Your task to perform on an android device: Open the calendar and show me this week's events? Image 0: 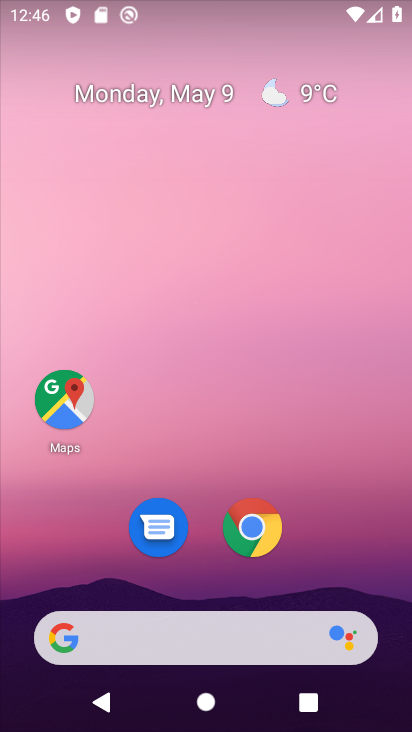
Step 0: drag from (211, 578) to (253, 134)
Your task to perform on an android device: Open the calendar and show me this week's events? Image 1: 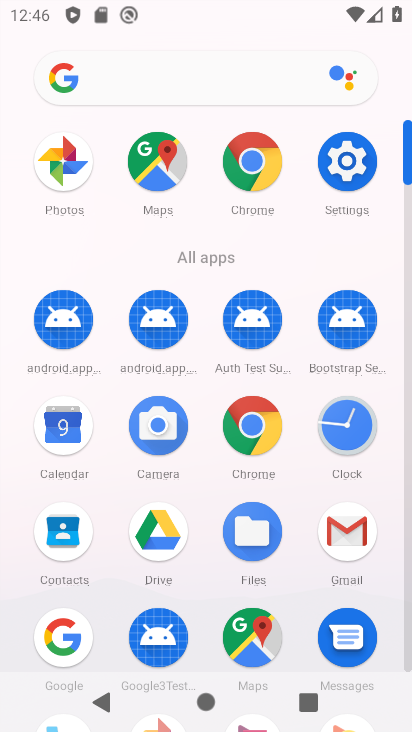
Step 1: click (55, 437)
Your task to perform on an android device: Open the calendar and show me this week's events? Image 2: 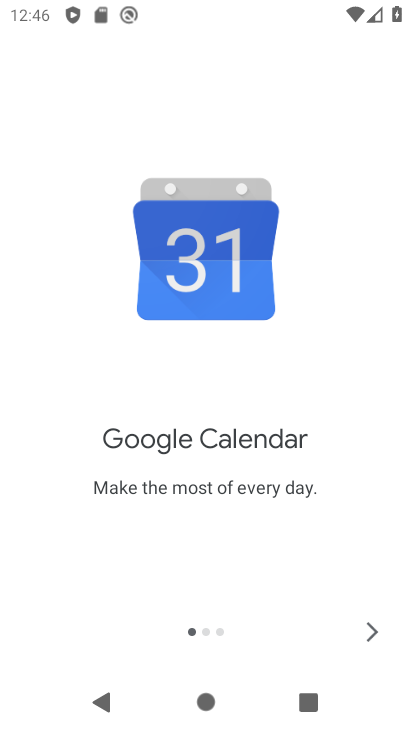
Step 2: click (380, 622)
Your task to perform on an android device: Open the calendar and show me this week's events? Image 3: 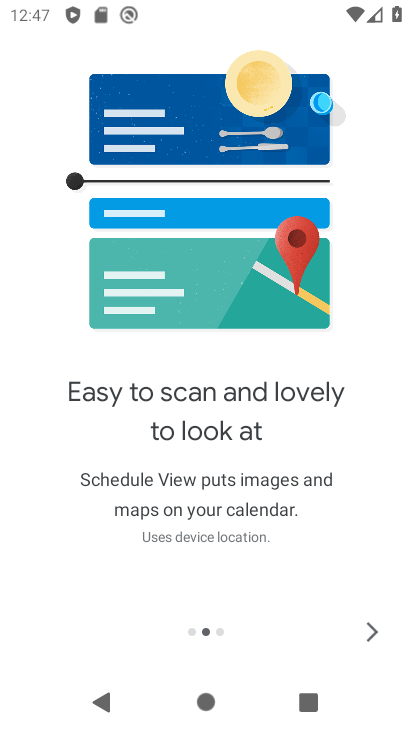
Step 3: click (360, 630)
Your task to perform on an android device: Open the calendar and show me this week's events? Image 4: 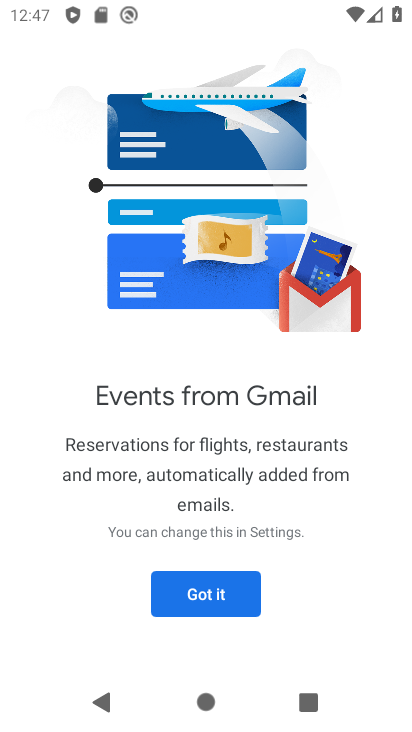
Step 4: click (212, 599)
Your task to perform on an android device: Open the calendar and show me this week's events? Image 5: 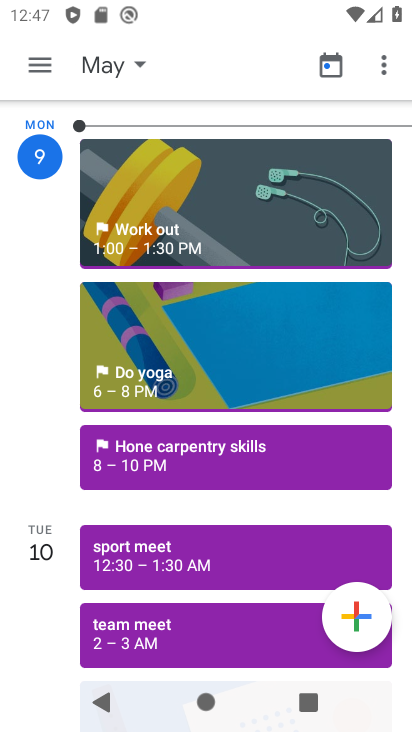
Step 5: click (60, 60)
Your task to perform on an android device: Open the calendar and show me this week's events? Image 6: 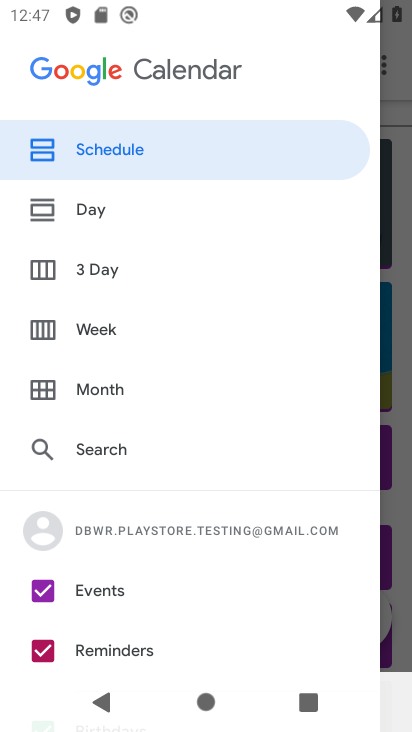
Step 6: drag from (177, 356) to (194, 280)
Your task to perform on an android device: Open the calendar and show me this week's events? Image 7: 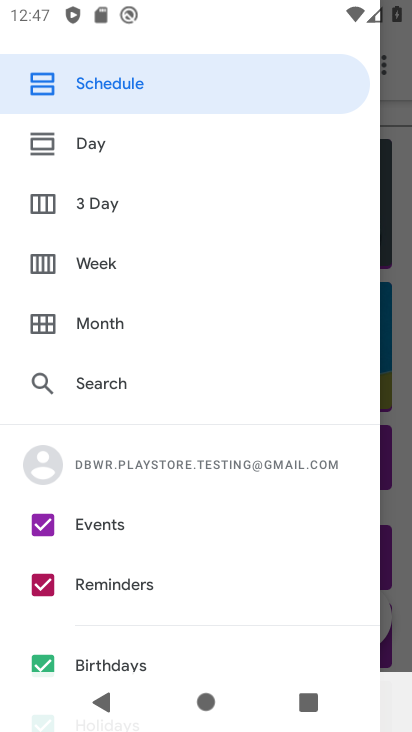
Step 7: click (34, 577)
Your task to perform on an android device: Open the calendar and show me this week's events? Image 8: 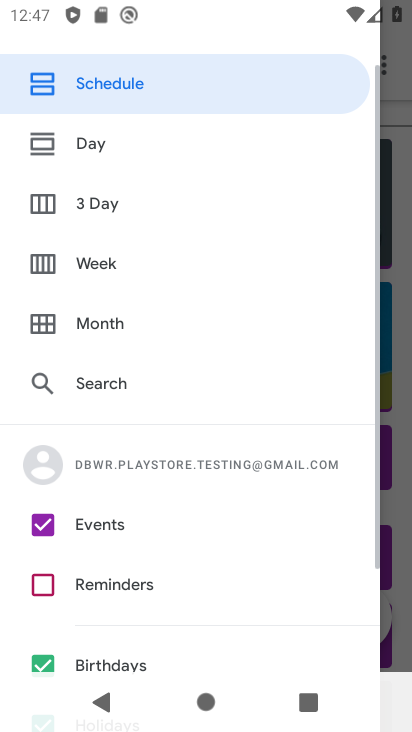
Step 8: drag from (156, 610) to (214, 217)
Your task to perform on an android device: Open the calendar and show me this week's events? Image 9: 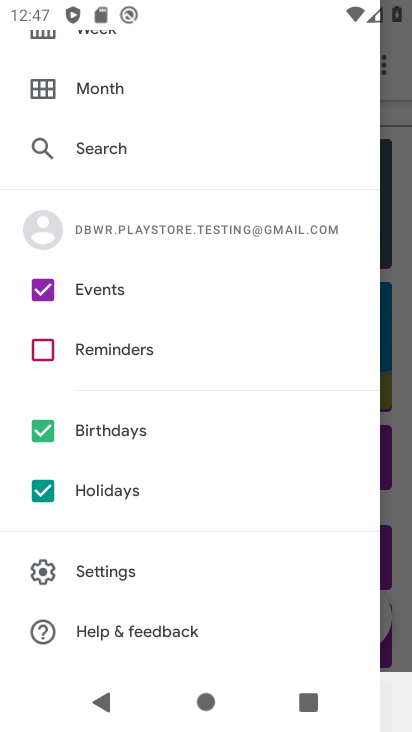
Step 9: click (45, 433)
Your task to perform on an android device: Open the calendar and show me this week's events? Image 10: 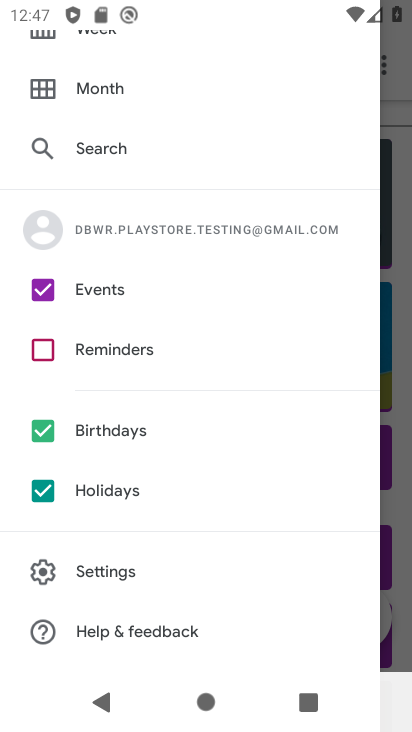
Step 10: click (49, 509)
Your task to perform on an android device: Open the calendar and show me this week's events? Image 11: 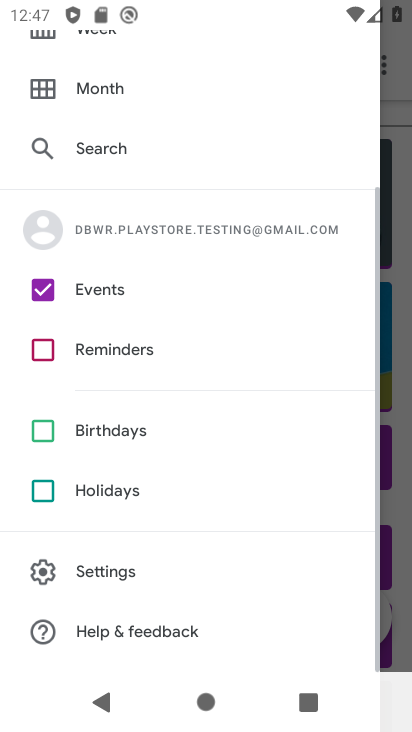
Step 11: drag from (237, 195) to (237, 609)
Your task to perform on an android device: Open the calendar and show me this week's events? Image 12: 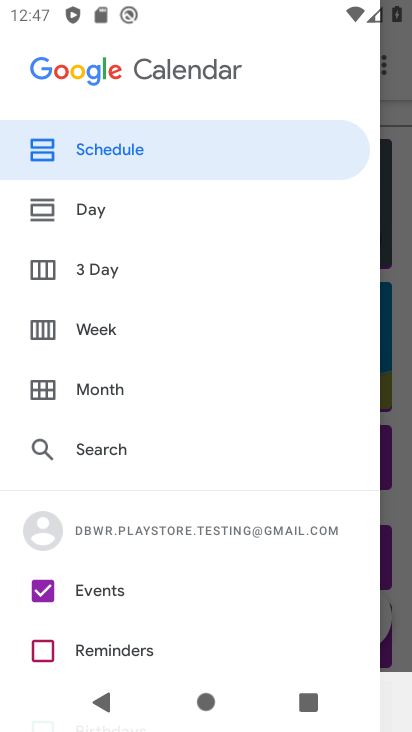
Step 12: click (112, 334)
Your task to perform on an android device: Open the calendar and show me this week's events? Image 13: 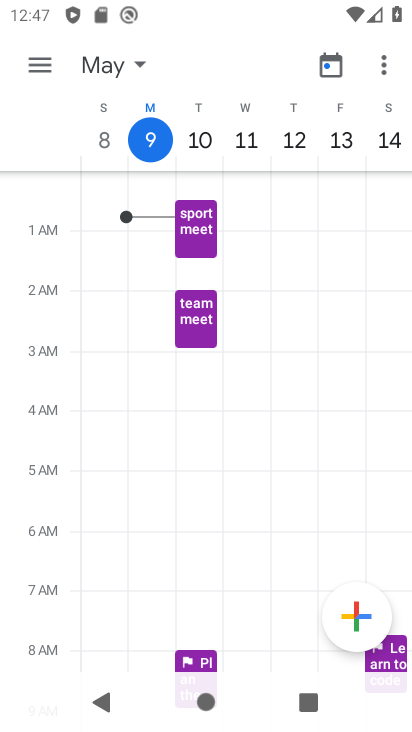
Step 13: task complete